Your task to perform on an android device: delete location history Image 0: 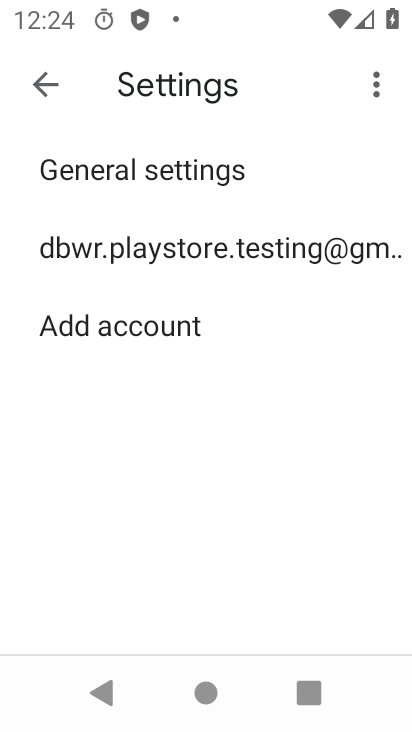
Step 0: press home button
Your task to perform on an android device: delete location history Image 1: 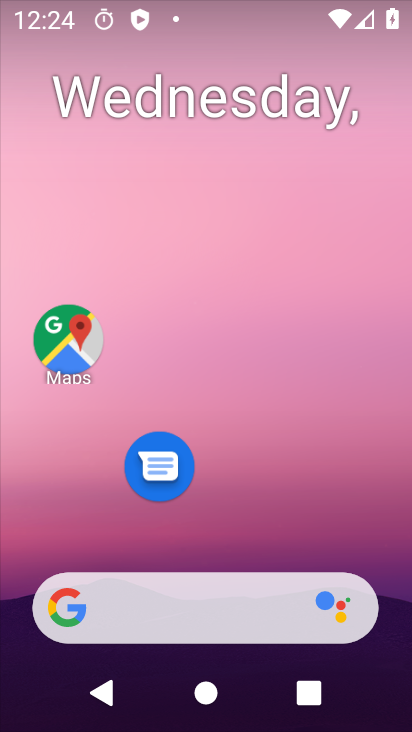
Step 1: drag from (315, 514) to (297, 170)
Your task to perform on an android device: delete location history Image 2: 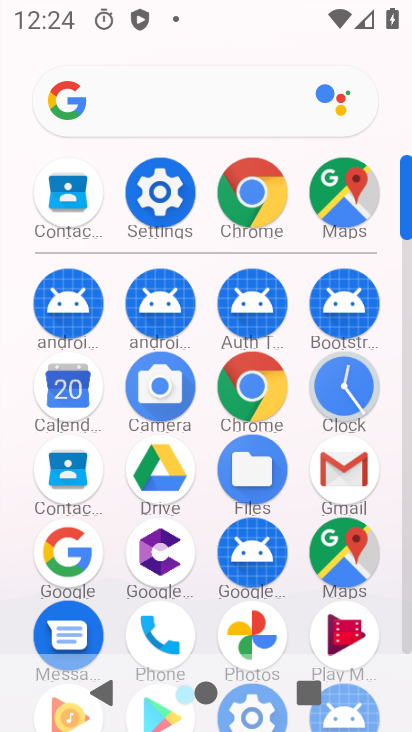
Step 2: click (157, 198)
Your task to perform on an android device: delete location history Image 3: 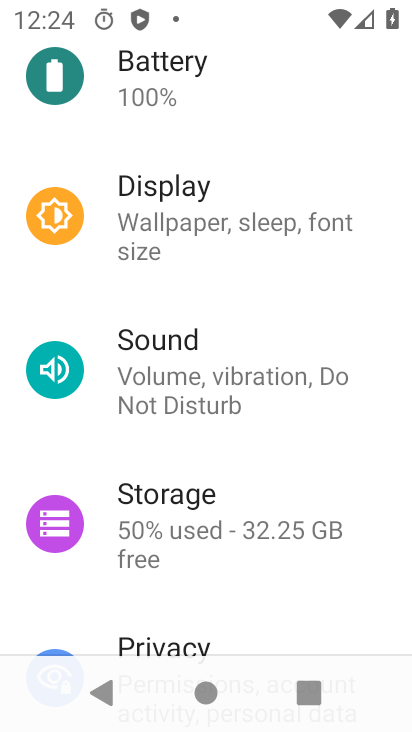
Step 3: drag from (262, 341) to (218, 721)
Your task to perform on an android device: delete location history Image 4: 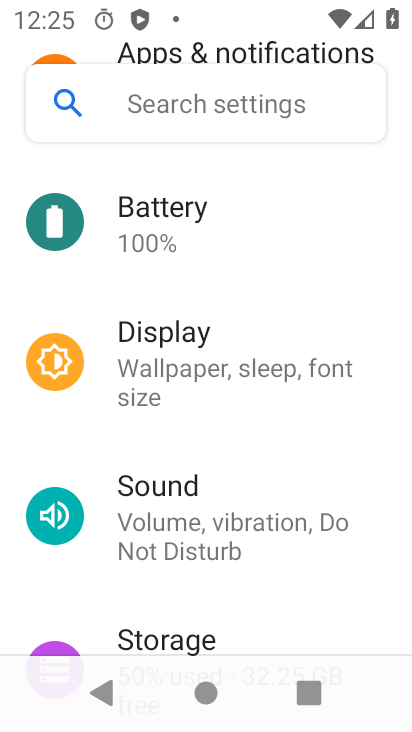
Step 4: drag from (207, 531) to (234, 196)
Your task to perform on an android device: delete location history Image 5: 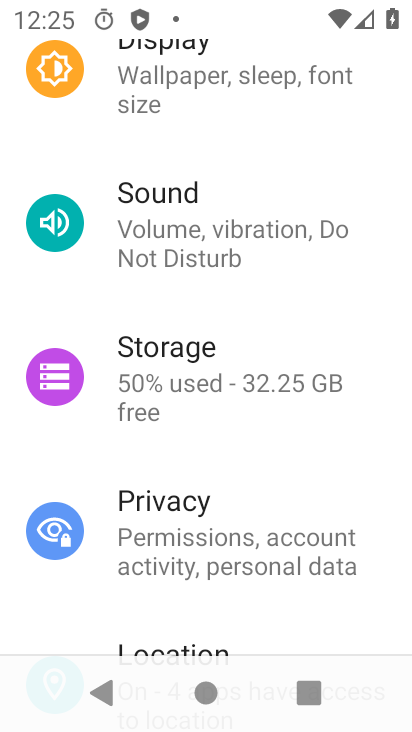
Step 5: drag from (260, 576) to (267, 155)
Your task to perform on an android device: delete location history Image 6: 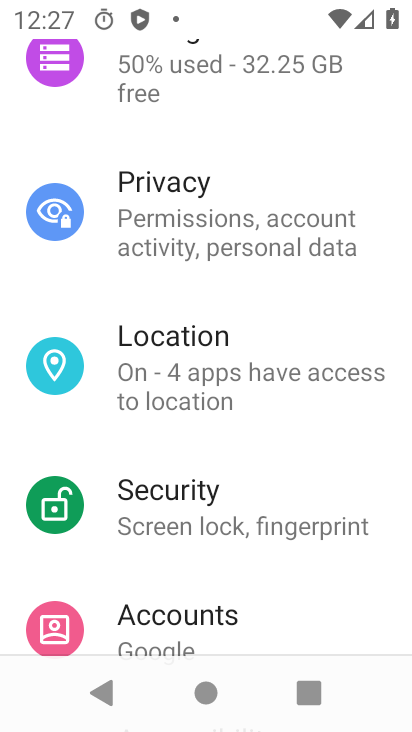
Step 6: click (218, 377)
Your task to perform on an android device: delete location history Image 7: 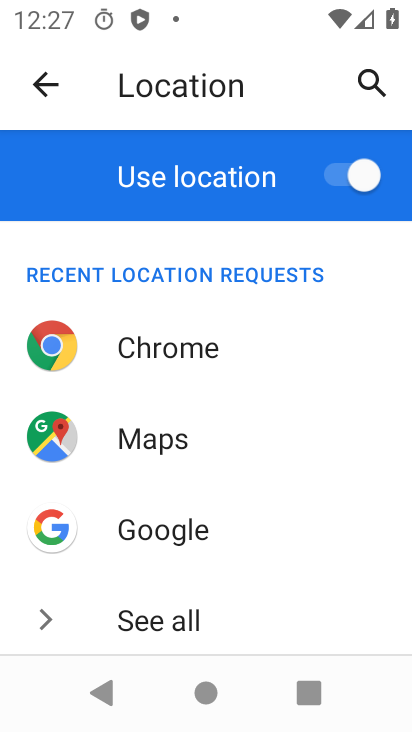
Step 7: drag from (209, 563) to (263, 286)
Your task to perform on an android device: delete location history Image 8: 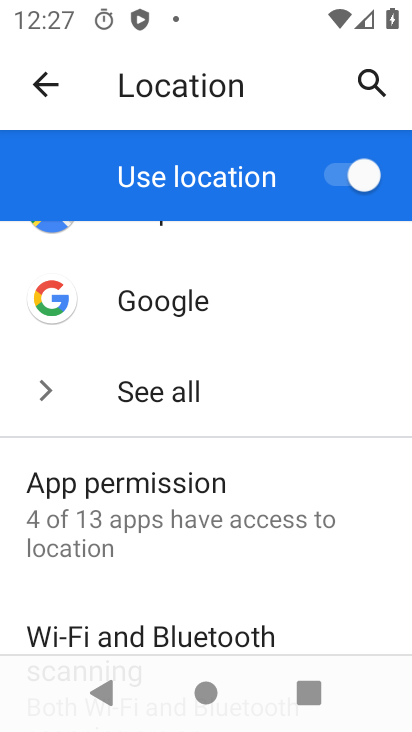
Step 8: drag from (201, 568) to (241, 381)
Your task to perform on an android device: delete location history Image 9: 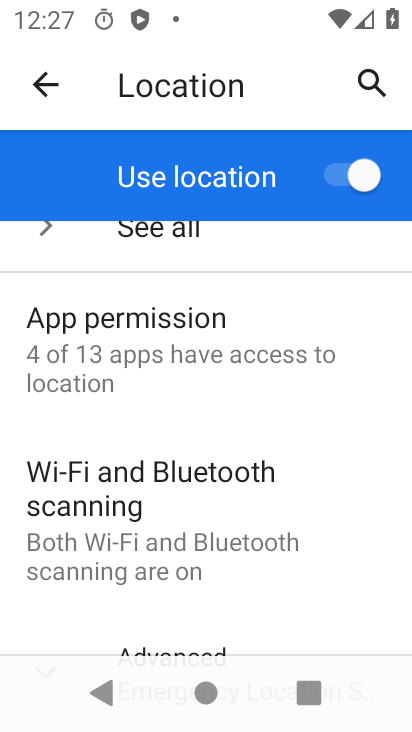
Step 9: drag from (175, 317) to (228, 185)
Your task to perform on an android device: delete location history Image 10: 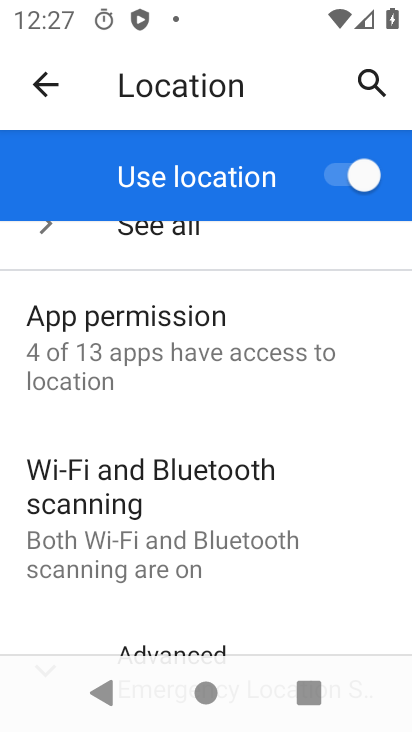
Step 10: click (202, 635)
Your task to perform on an android device: delete location history Image 11: 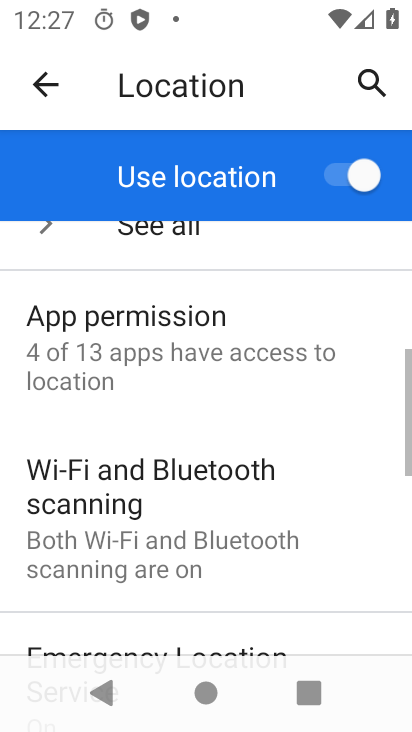
Step 11: drag from (202, 635) to (220, 299)
Your task to perform on an android device: delete location history Image 12: 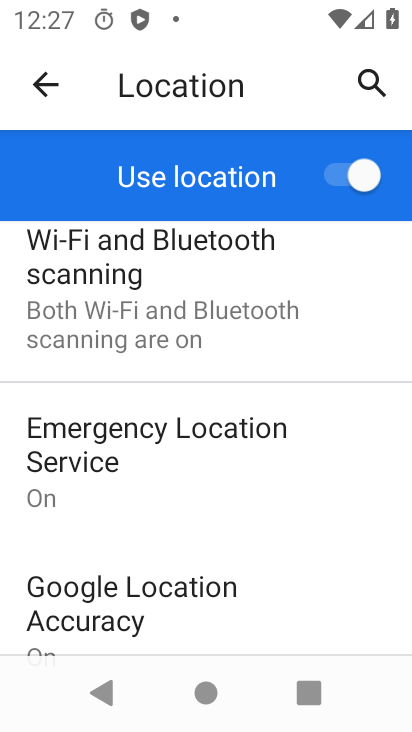
Step 12: drag from (243, 578) to (273, 366)
Your task to perform on an android device: delete location history Image 13: 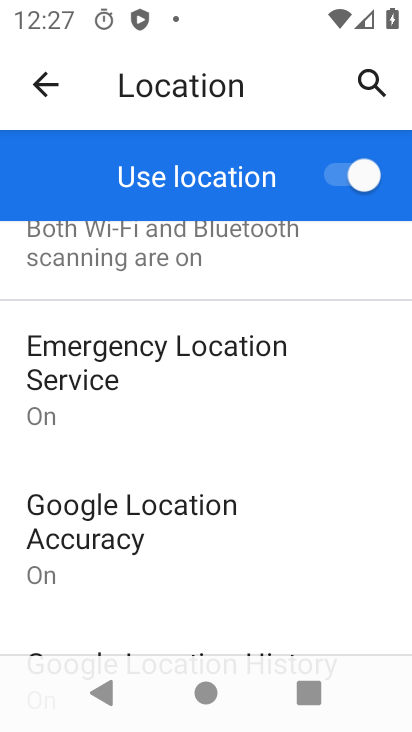
Step 13: drag from (230, 636) to (245, 446)
Your task to perform on an android device: delete location history Image 14: 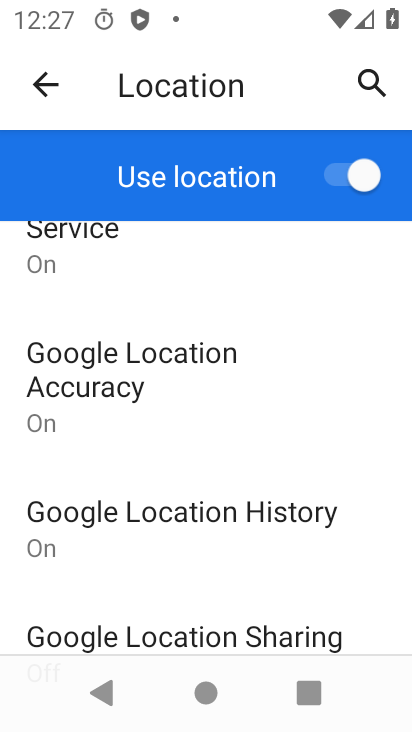
Step 14: click (217, 515)
Your task to perform on an android device: delete location history Image 15: 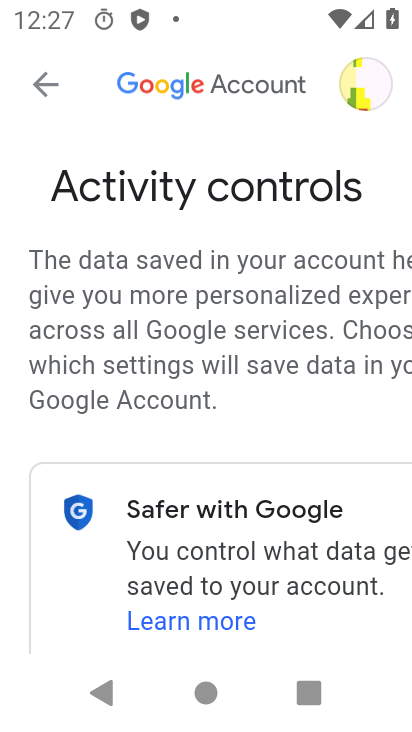
Step 15: drag from (283, 610) to (304, 321)
Your task to perform on an android device: delete location history Image 16: 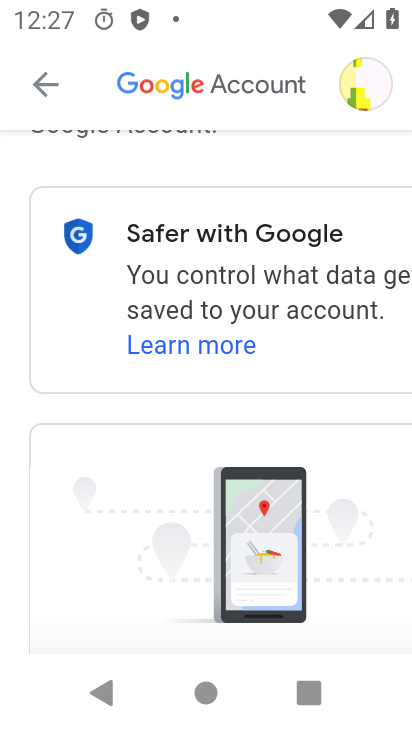
Step 16: drag from (235, 555) to (261, 301)
Your task to perform on an android device: delete location history Image 17: 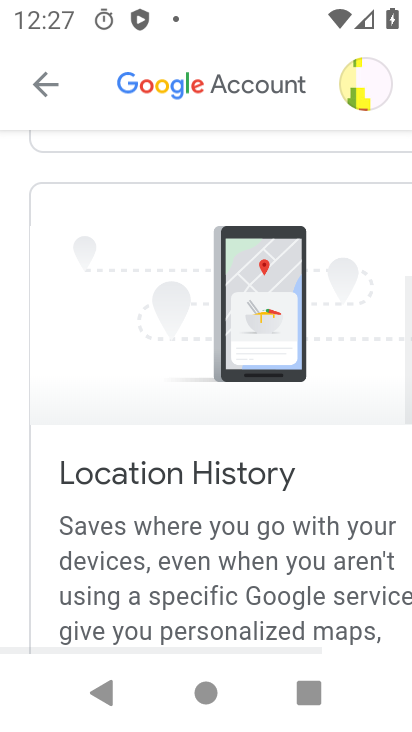
Step 17: drag from (221, 532) to (257, 336)
Your task to perform on an android device: delete location history Image 18: 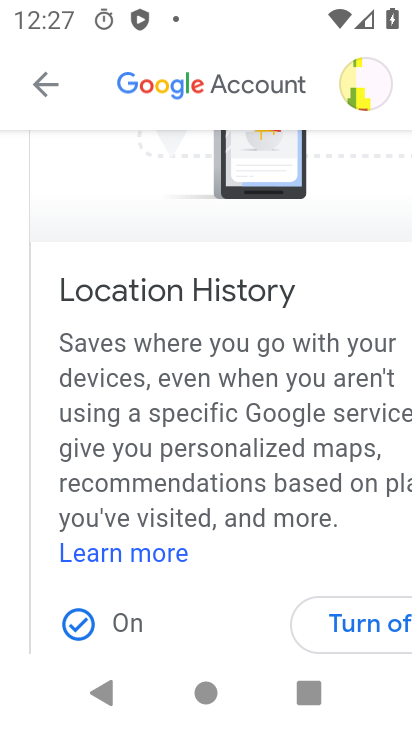
Step 18: drag from (212, 578) to (215, 324)
Your task to perform on an android device: delete location history Image 19: 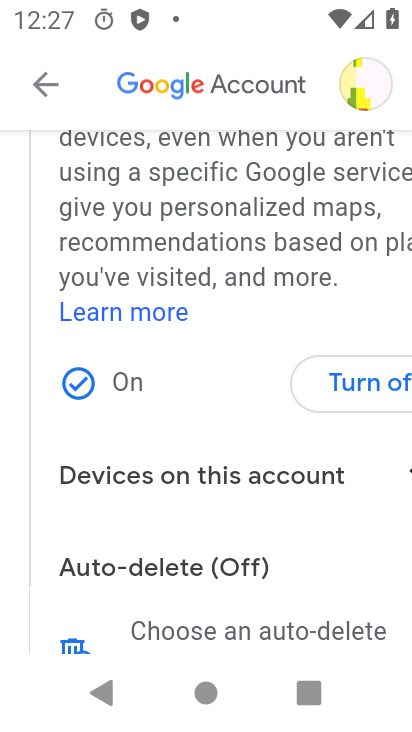
Step 19: click (262, 586)
Your task to perform on an android device: delete location history Image 20: 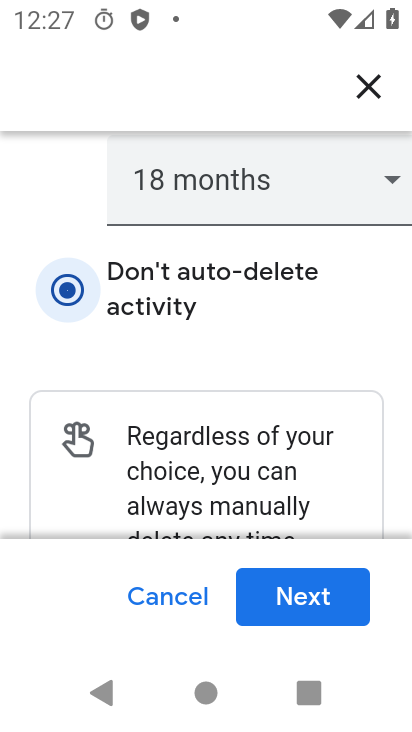
Step 20: click (331, 610)
Your task to perform on an android device: delete location history Image 21: 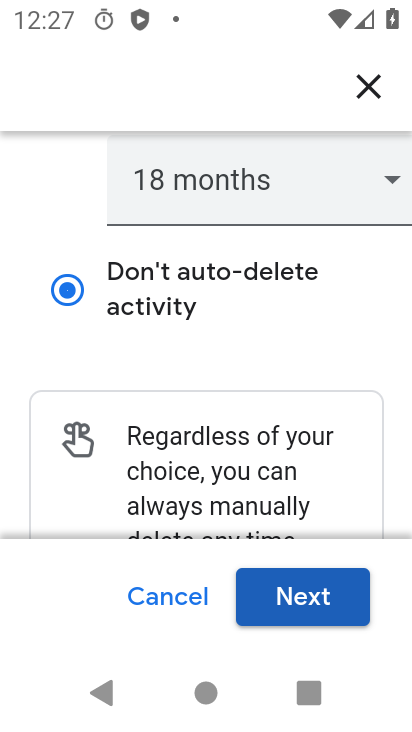
Step 21: click (331, 610)
Your task to perform on an android device: delete location history Image 22: 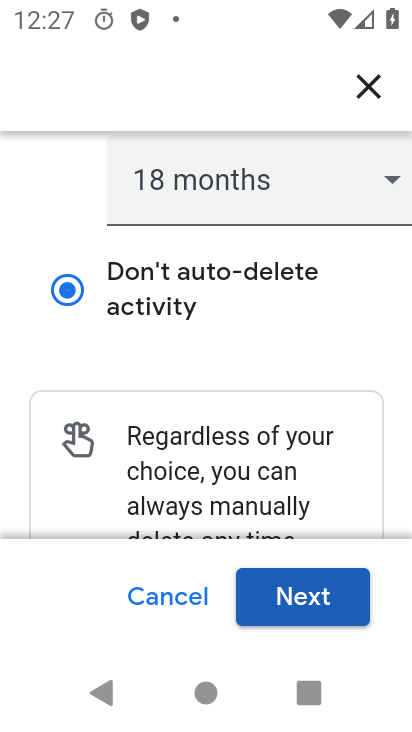
Step 22: click (331, 610)
Your task to perform on an android device: delete location history Image 23: 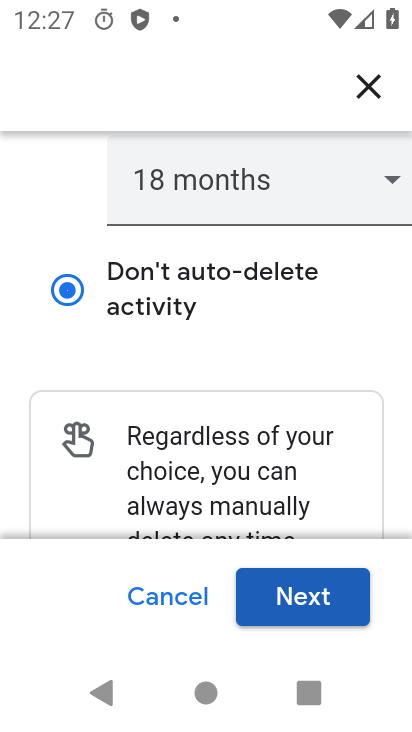
Step 23: click (331, 610)
Your task to perform on an android device: delete location history Image 24: 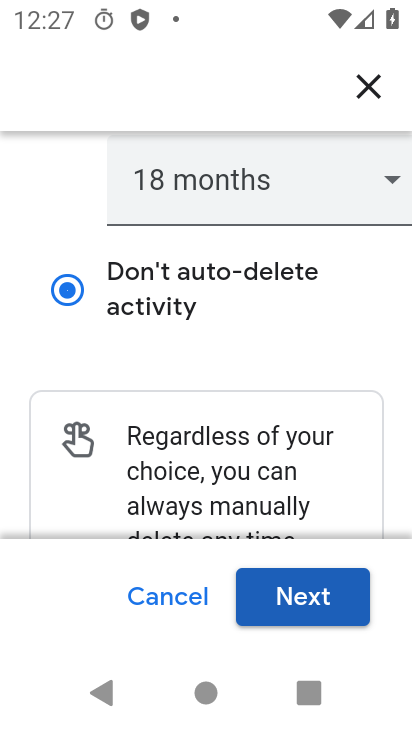
Step 24: click (331, 610)
Your task to perform on an android device: delete location history Image 25: 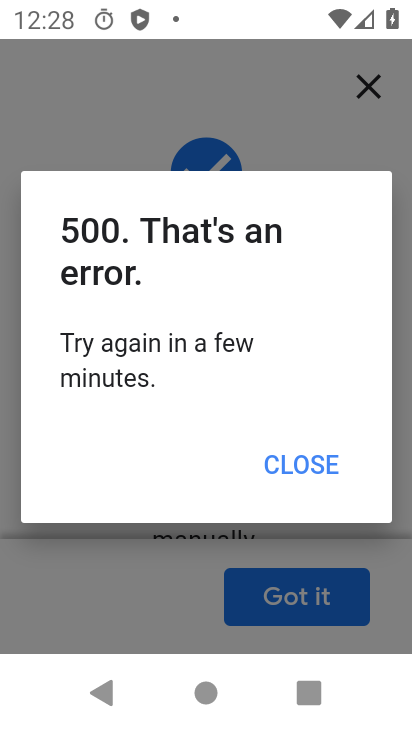
Step 25: task complete